Your task to perform on an android device: Go to wifi settings Image 0: 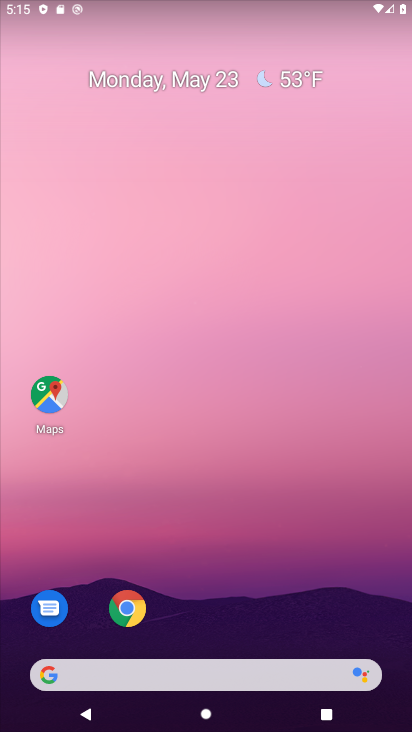
Step 0: drag from (274, 8) to (348, 425)
Your task to perform on an android device: Go to wifi settings Image 1: 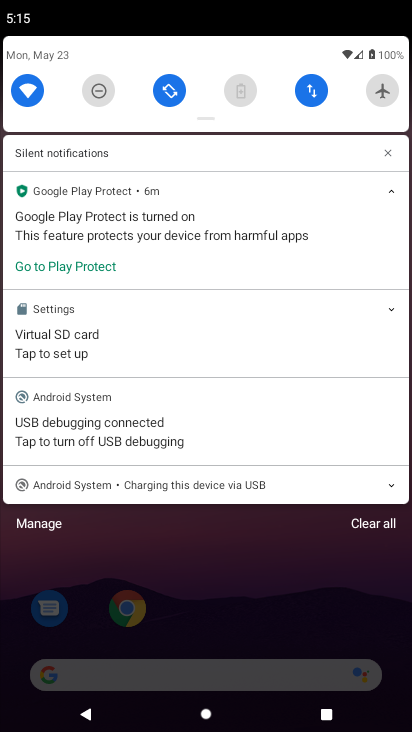
Step 1: click (18, 87)
Your task to perform on an android device: Go to wifi settings Image 2: 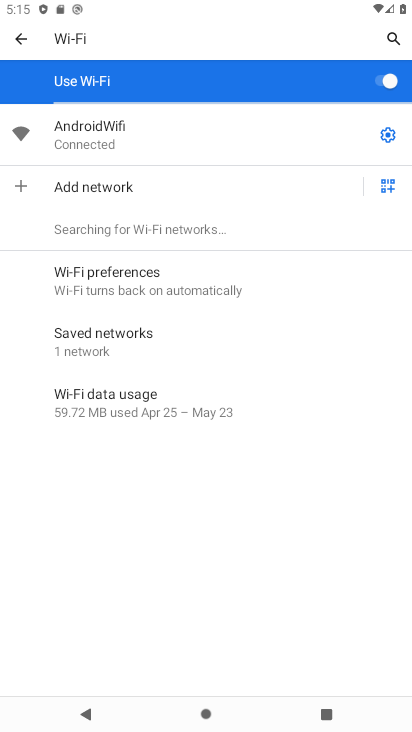
Step 2: click (396, 136)
Your task to perform on an android device: Go to wifi settings Image 3: 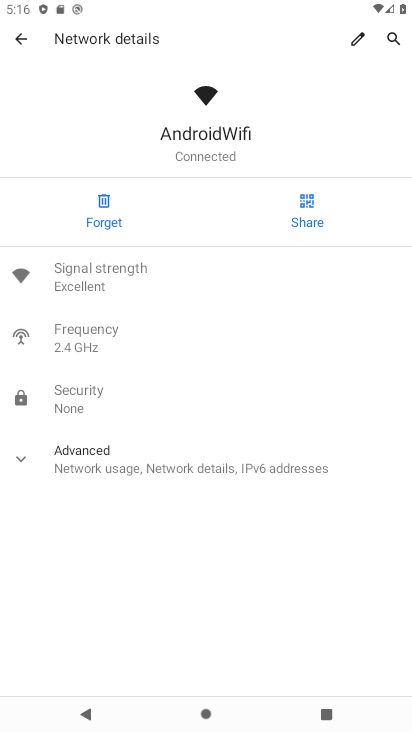
Step 3: task complete